Your task to perform on an android device: Open calendar and show me the second week of next month Image 0: 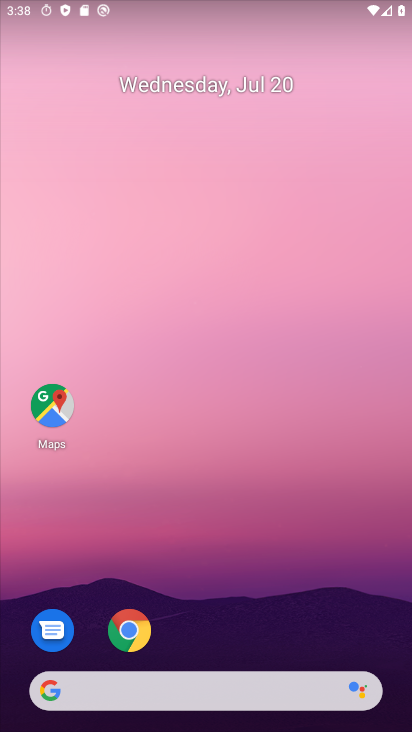
Step 0: press home button
Your task to perform on an android device: Open calendar and show me the second week of next month Image 1: 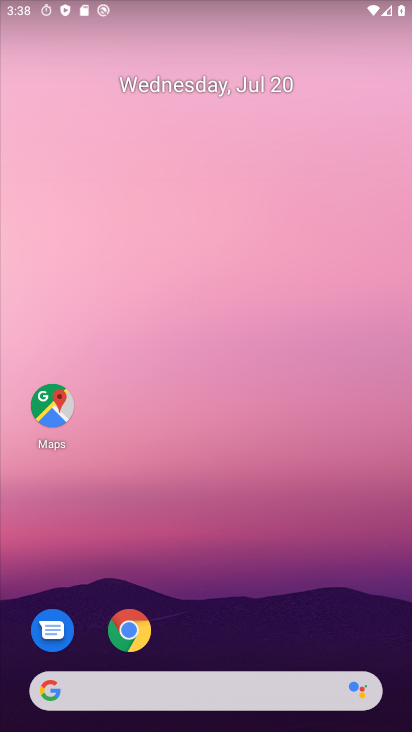
Step 1: drag from (235, 619) to (271, 5)
Your task to perform on an android device: Open calendar and show me the second week of next month Image 2: 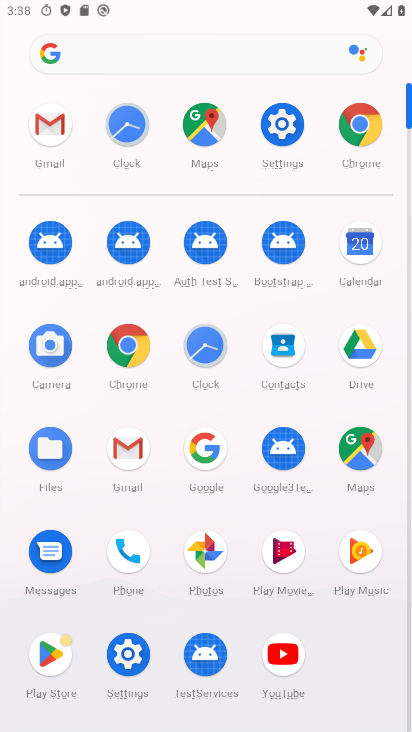
Step 2: click (354, 251)
Your task to perform on an android device: Open calendar and show me the second week of next month Image 3: 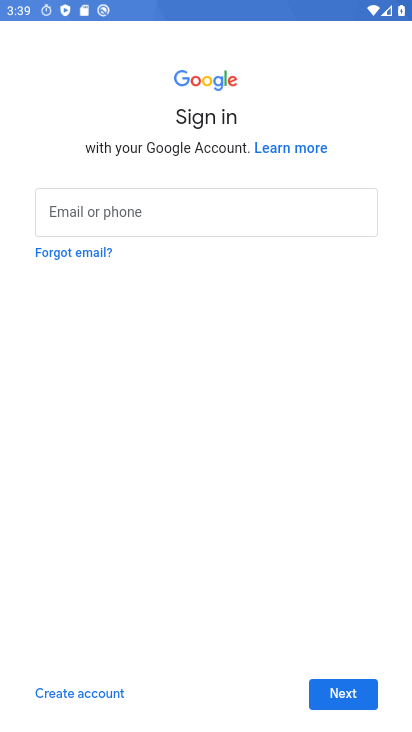
Step 3: task complete